Your task to perform on an android device: Open the calendar and show me this week's events? Image 0: 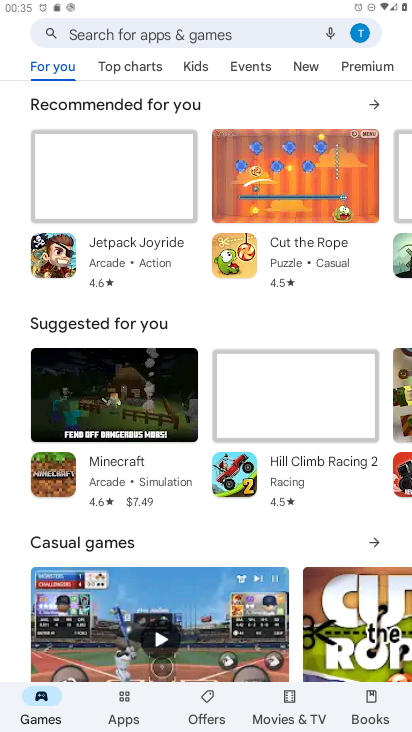
Step 0: press home button
Your task to perform on an android device: Open the calendar and show me this week's events? Image 1: 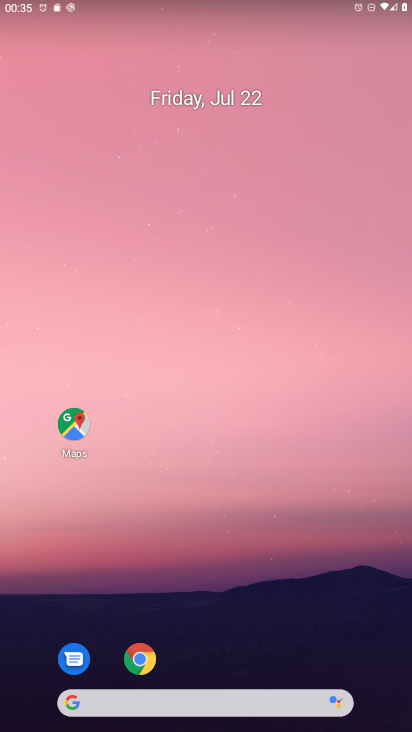
Step 1: drag from (197, 699) to (204, 113)
Your task to perform on an android device: Open the calendar and show me this week's events? Image 2: 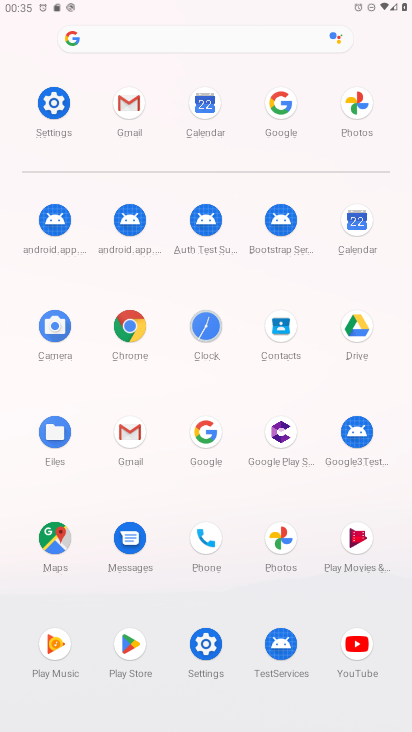
Step 2: click (358, 220)
Your task to perform on an android device: Open the calendar and show me this week's events? Image 3: 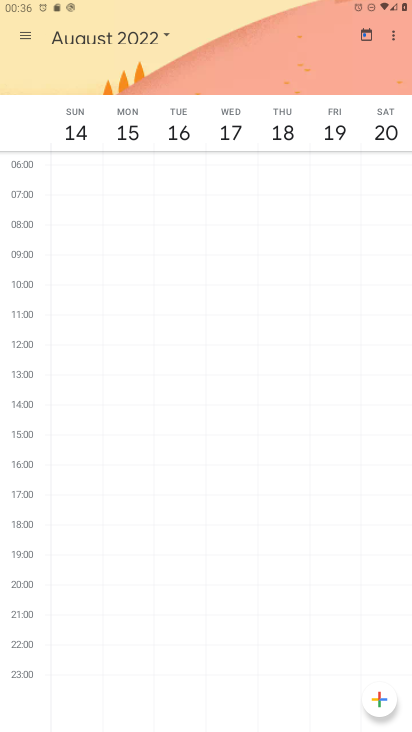
Step 3: click (369, 33)
Your task to perform on an android device: Open the calendar and show me this week's events? Image 4: 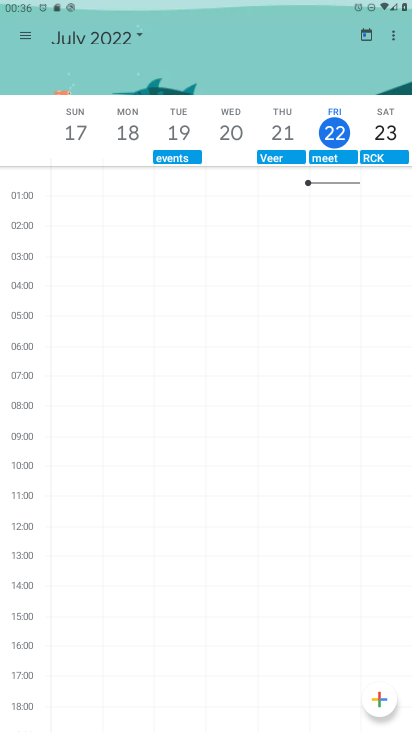
Step 4: click (137, 34)
Your task to perform on an android device: Open the calendar and show me this week's events? Image 5: 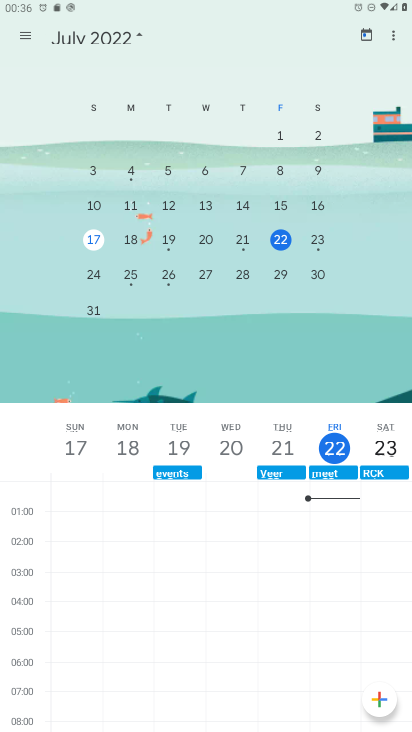
Step 5: click (32, 38)
Your task to perform on an android device: Open the calendar and show me this week's events? Image 6: 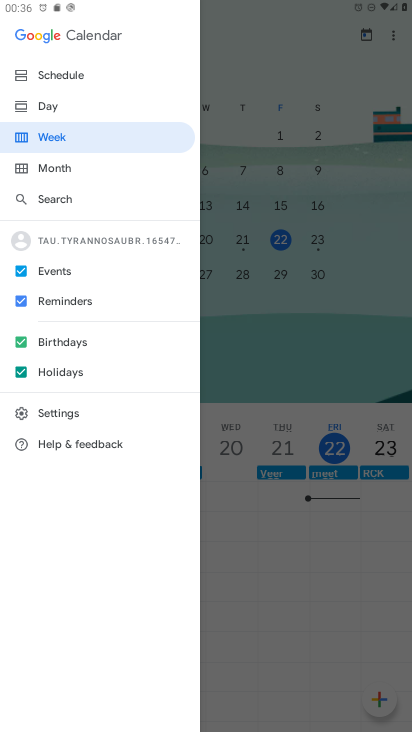
Step 6: click (59, 76)
Your task to perform on an android device: Open the calendar and show me this week's events? Image 7: 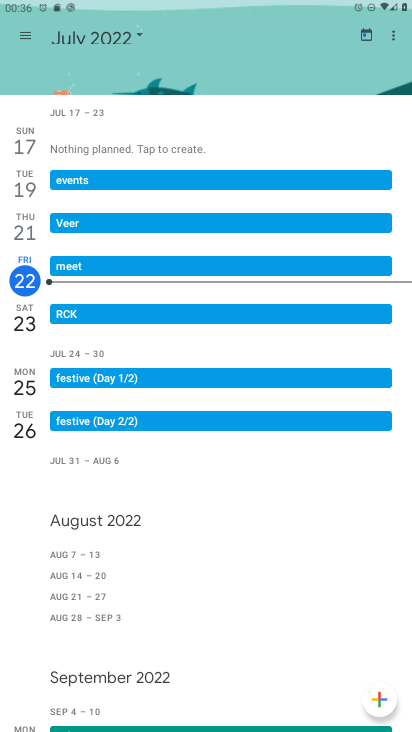
Step 7: task complete